Your task to perform on an android device: Go to wifi settings Image 0: 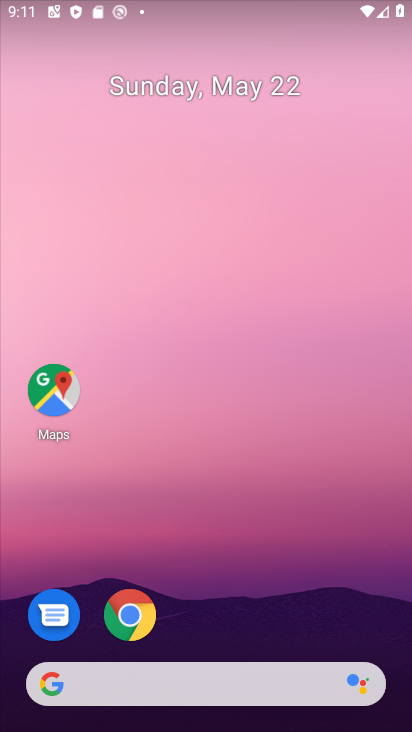
Step 0: drag from (261, 577) to (285, 319)
Your task to perform on an android device: Go to wifi settings Image 1: 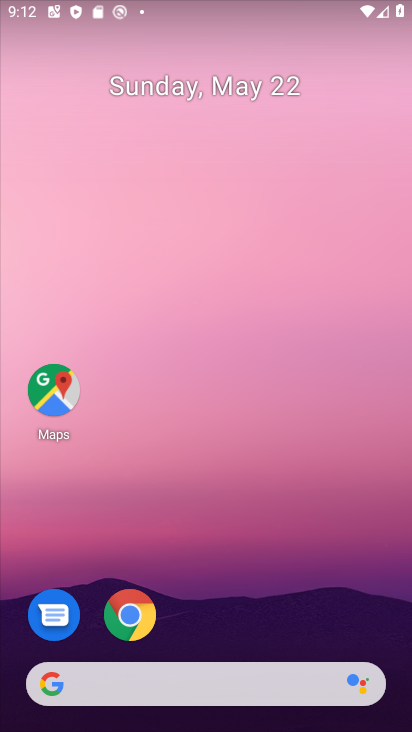
Step 1: drag from (253, 662) to (253, 240)
Your task to perform on an android device: Go to wifi settings Image 2: 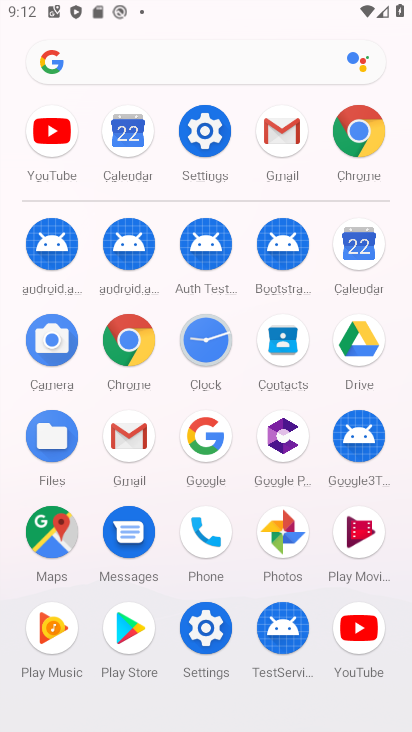
Step 2: click (214, 121)
Your task to perform on an android device: Go to wifi settings Image 3: 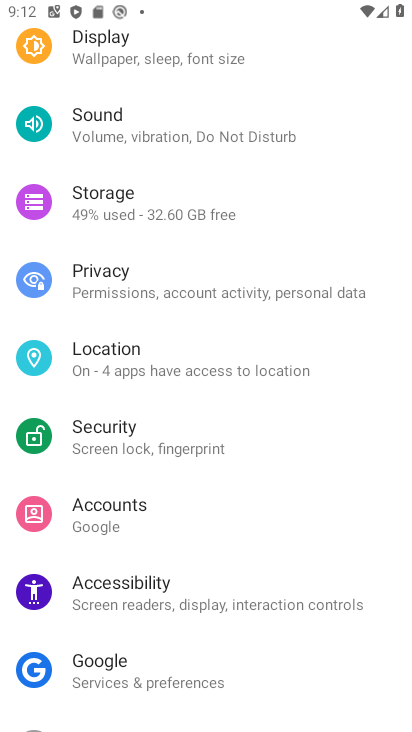
Step 3: drag from (220, 111) to (221, 616)
Your task to perform on an android device: Go to wifi settings Image 4: 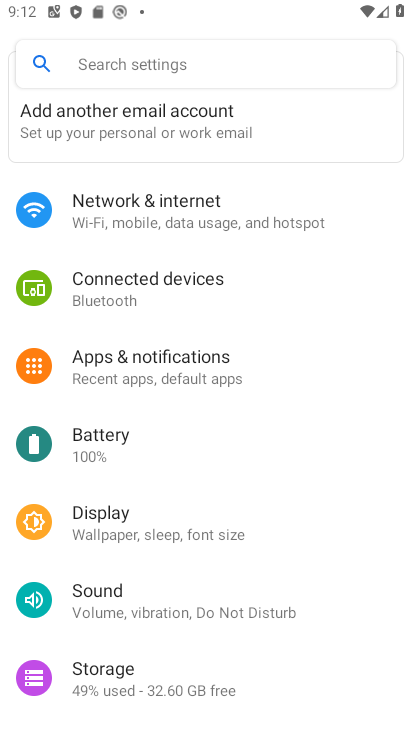
Step 4: click (201, 201)
Your task to perform on an android device: Go to wifi settings Image 5: 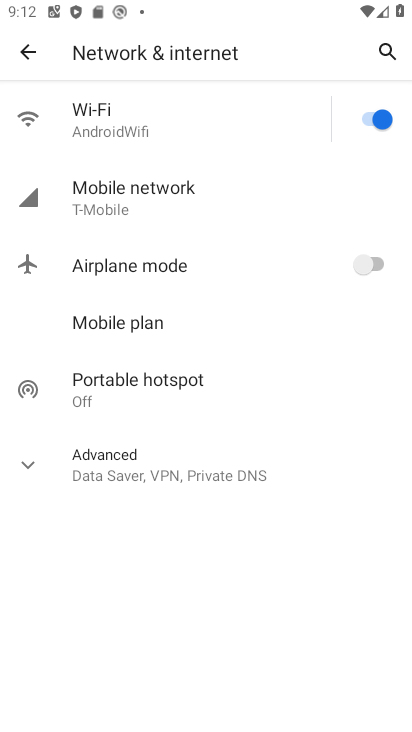
Step 5: click (119, 104)
Your task to perform on an android device: Go to wifi settings Image 6: 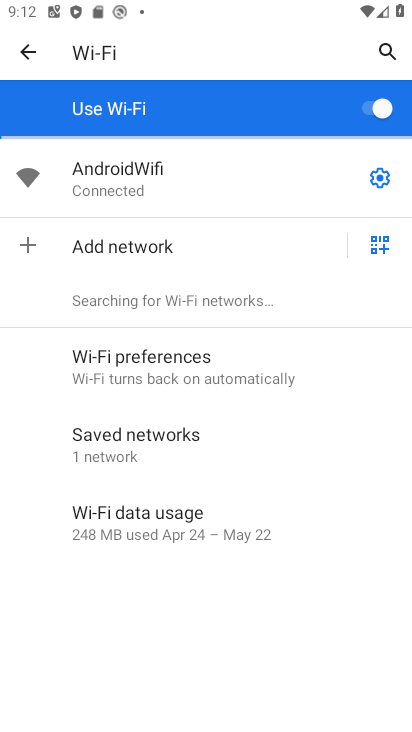
Step 6: task complete